Your task to perform on an android device: What's on my calendar tomorrow? Image 0: 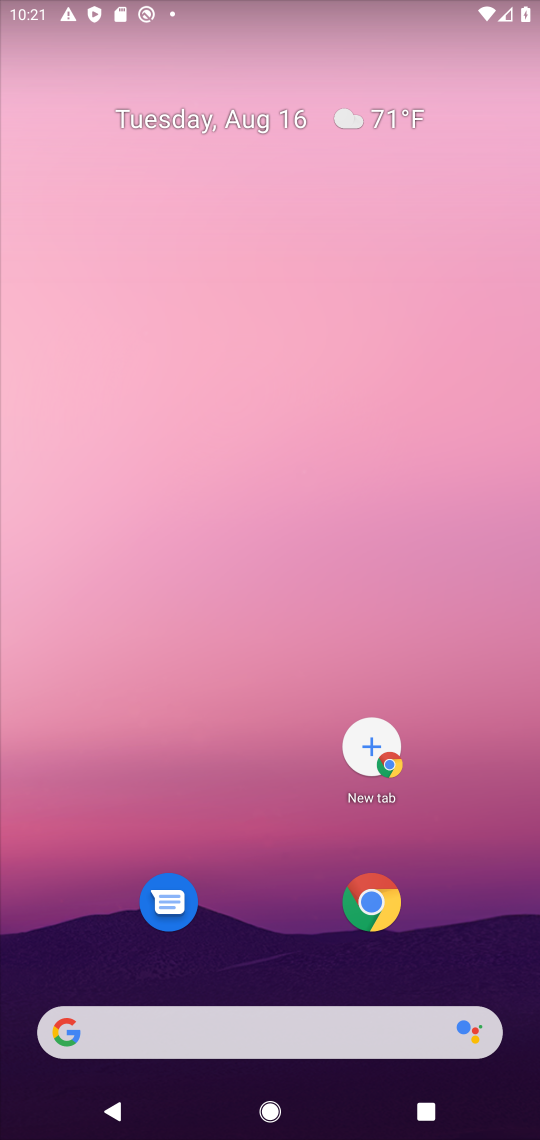
Step 0: drag from (256, 874) to (225, 226)
Your task to perform on an android device: What's on my calendar tomorrow? Image 1: 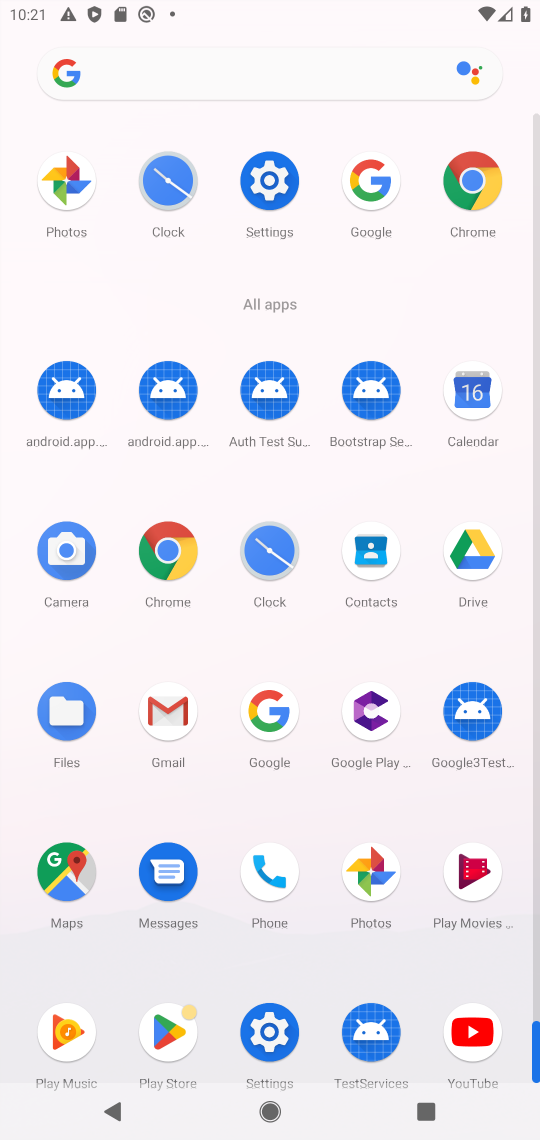
Step 1: click (470, 411)
Your task to perform on an android device: What's on my calendar tomorrow? Image 2: 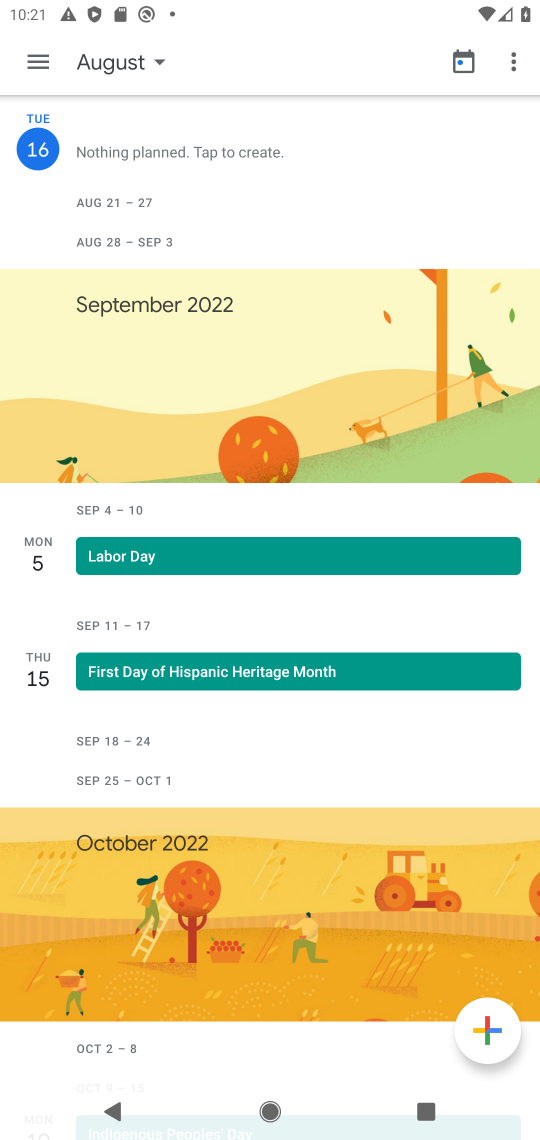
Step 2: click (135, 71)
Your task to perform on an android device: What's on my calendar tomorrow? Image 3: 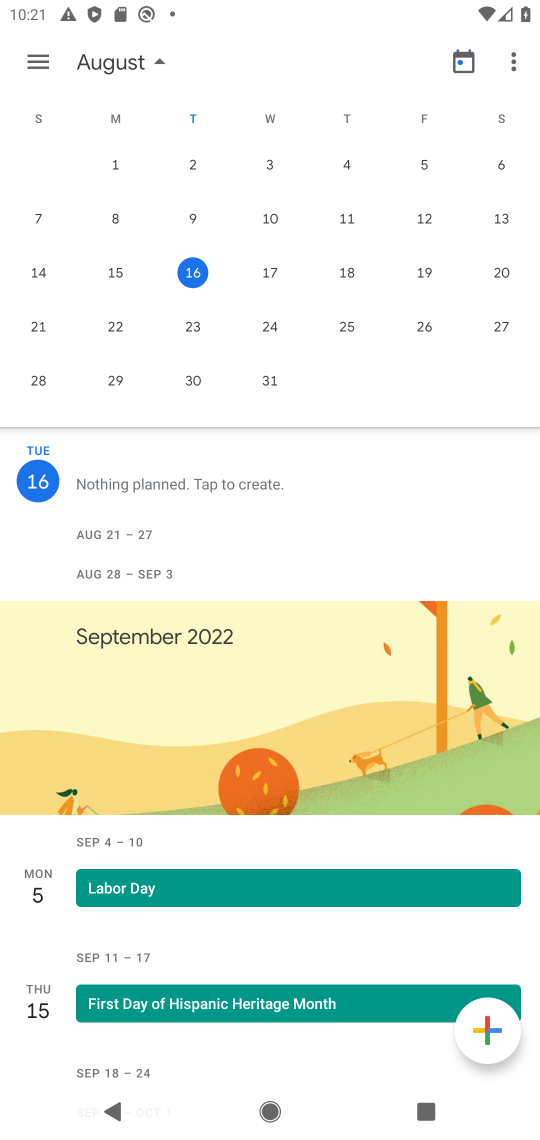
Step 3: click (272, 275)
Your task to perform on an android device: What's on my calendar tomorrow? Image 4: 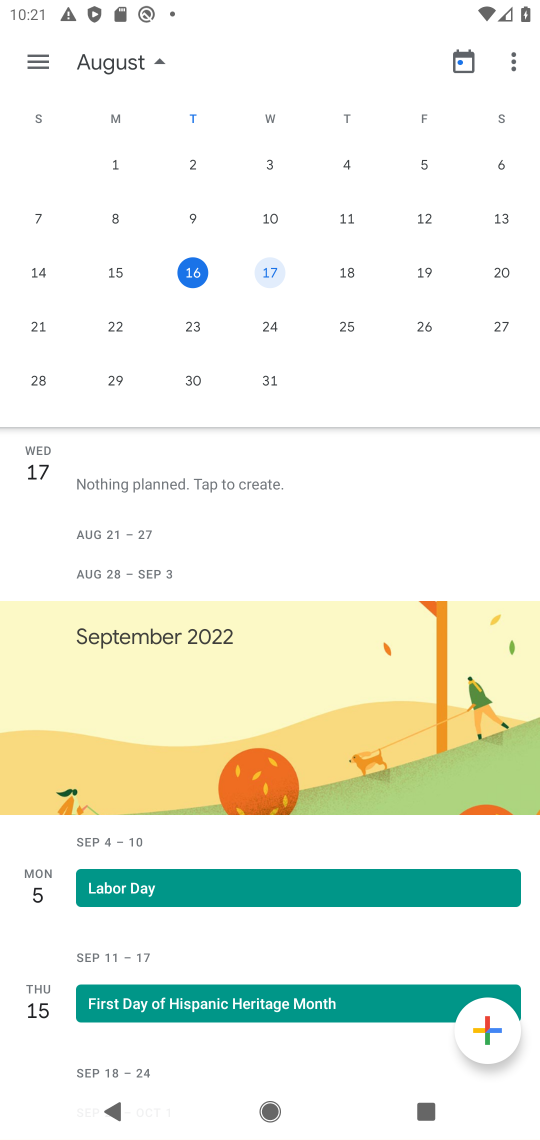
Step 4: task complete